Your task to perform on an android device: Open CNN.com Image 0: 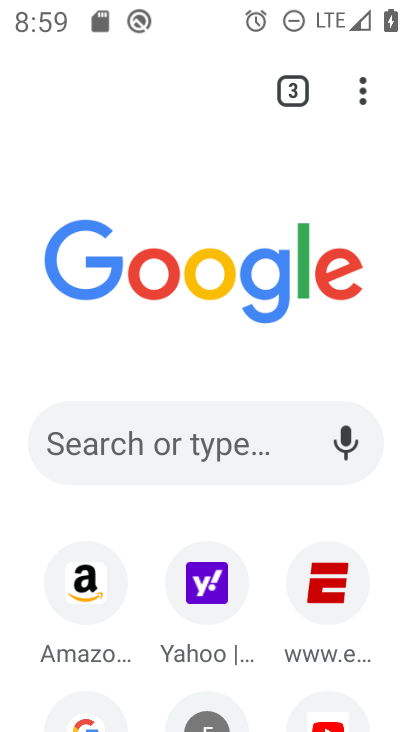
Step 0: press home button
Your task to perform on an android device: Open CNN.com Image 1: 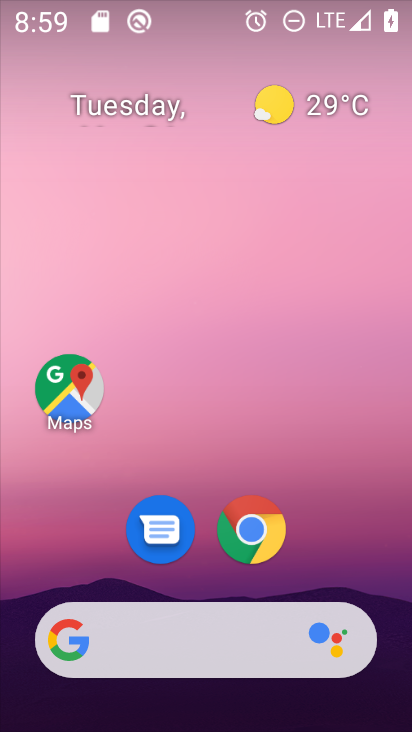
Step 1: drag from (399, 634) to (316, 62)
Your task to perform on an android device: Open CNN.com Image 2: 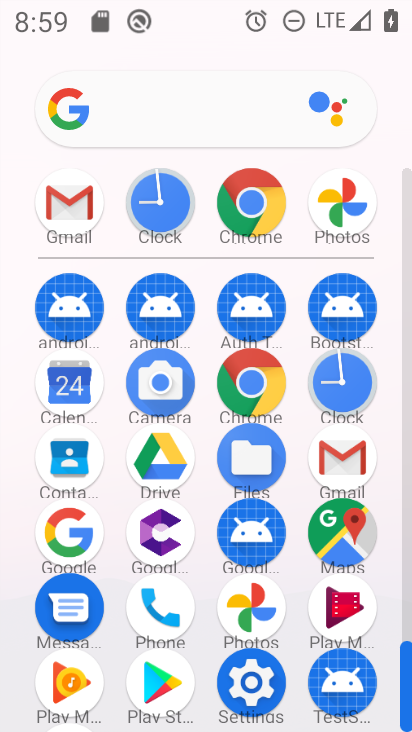
Step 2: click (73, 538)
Your task to perform on an android device: Open CNN.com Image 3: 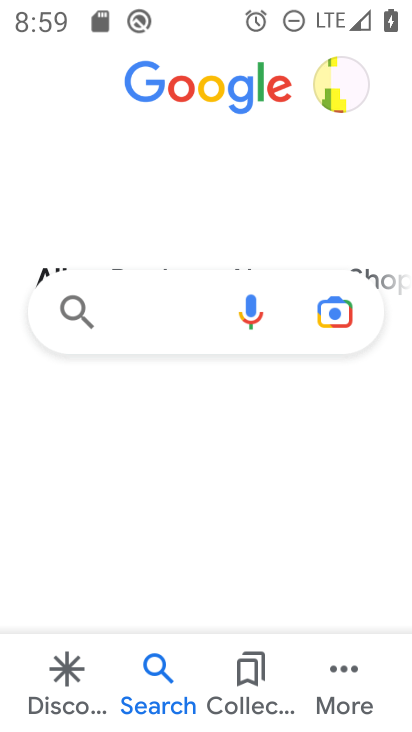
Step 3: click (159, 319)
Your task to perform on an android device: Open CNN.com Image 4: 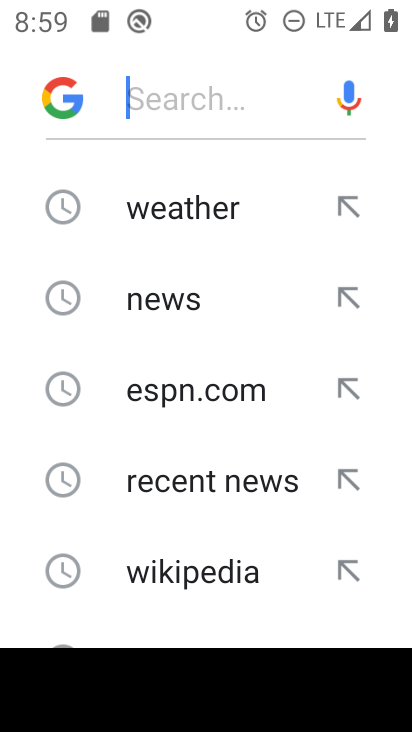
Step 4: drag from (172, 586) to (213, 232)
Your task to perform on an android device: Open CNN.com Image 5: 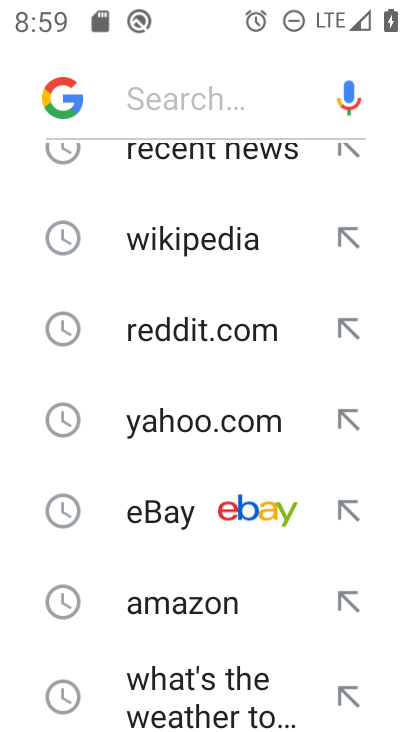
Step 5: drag from (188, 628) to (223, 282)
Your task to perform on an android device: Open CNN.com Image 6: 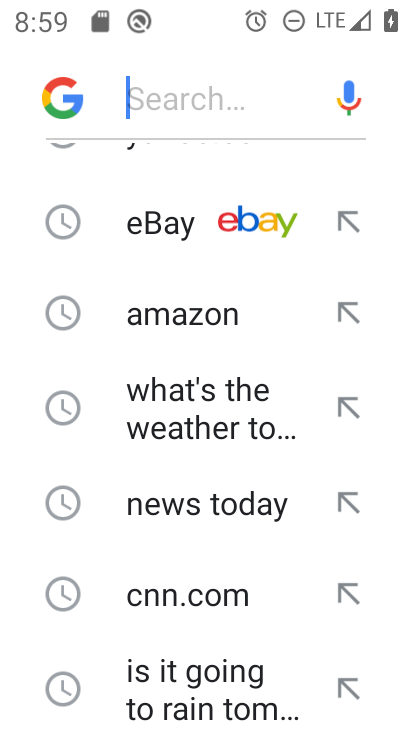
Step 6: click (202, 597)
Your task to perform on an android device: Open CNN.com Image 7: 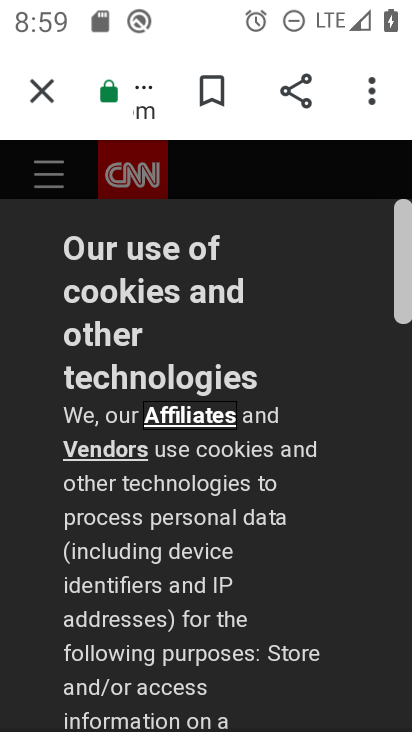
Step 7: task complete